Your task to perform on an android device: Open Maps and search for coffee Image 0: 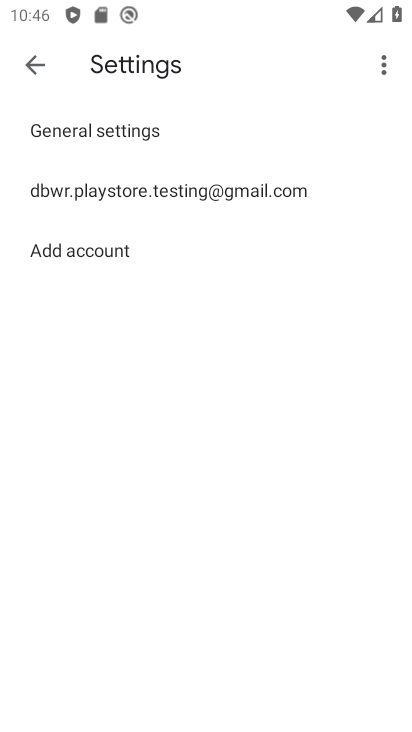
Step 0: click (39, 51)
Your task to perform on an android device: Open Maps and search for coffee Image 1: 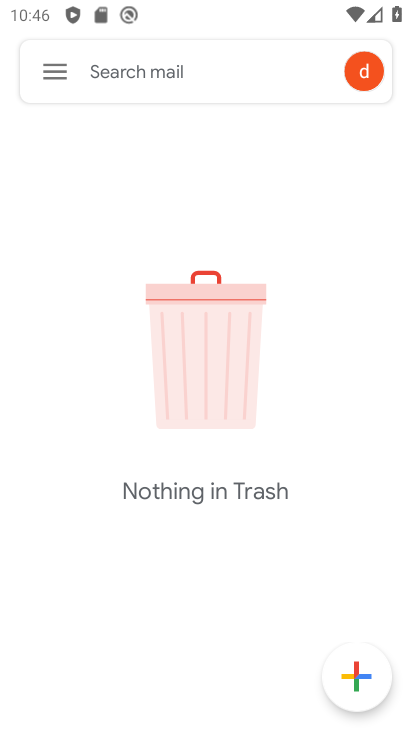
Step 1: press home button
Your task to perform on an android device: Open Maps and search for coffee Image 2: 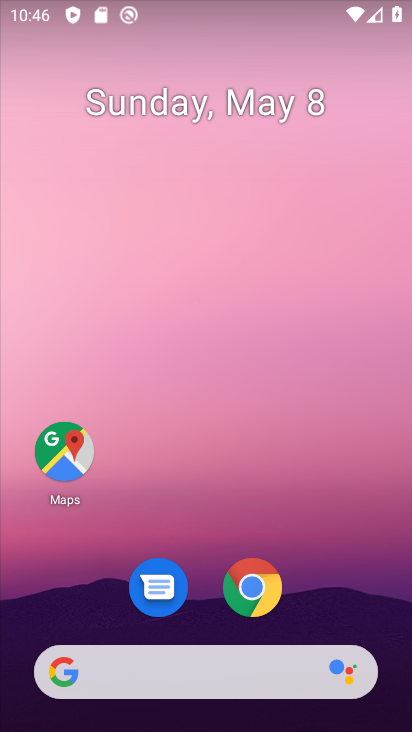
Step 2: click (63, 455)
Your task to perform on an android device: Open Maps and search for coffee Image 3: 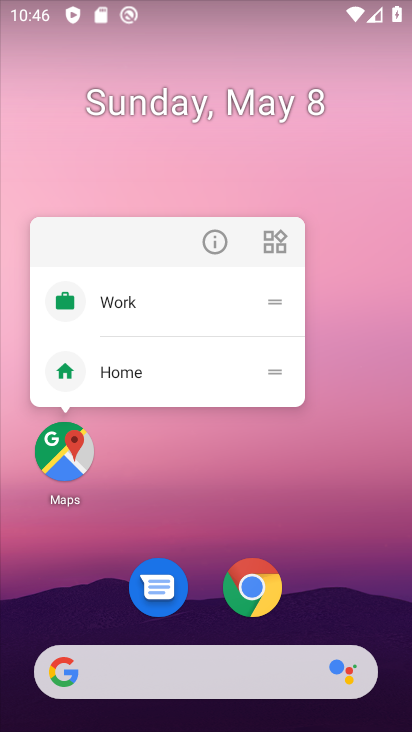
Step 3: click (56, 460)
Your task to perform on an android device: Open Maps and search for coffee Image 4: 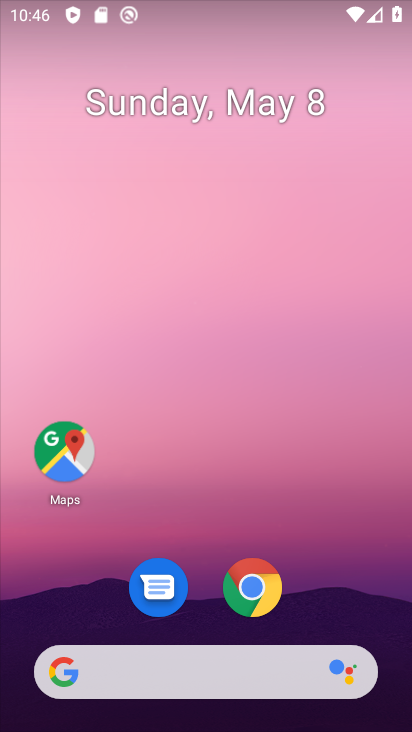
Step 4: click (56, 460)
Your task to perform on an android device: Open Maps and search for coffee Image 5: 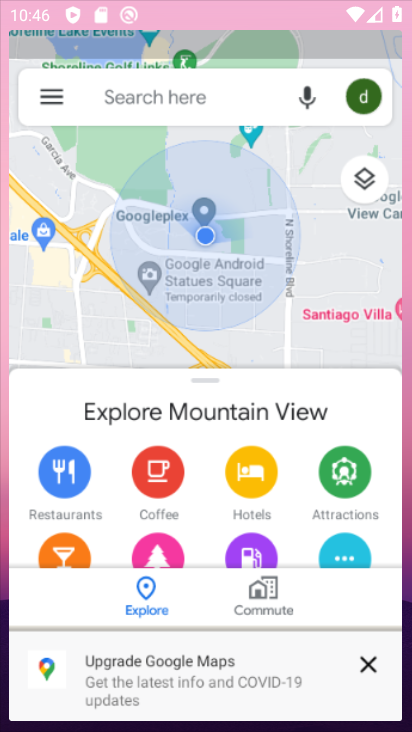
Step 5: click (55, 460)
Your task to perform on an android device: Open Maps and search for coffee Image 6: 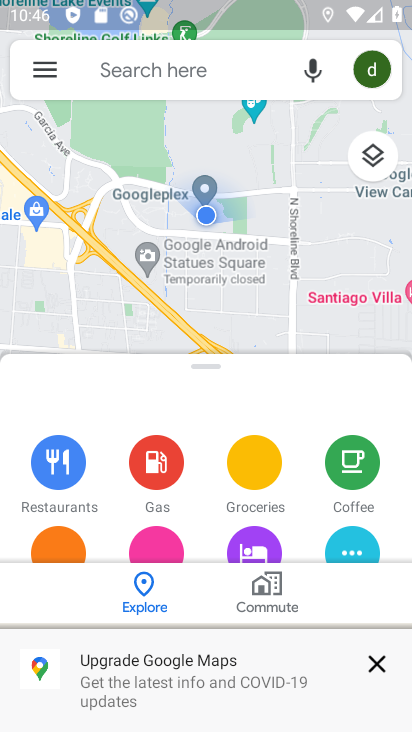
Step 6: click (114, 71)
Your task to perform on an android device: Open Maps and search for coffee Image 7: 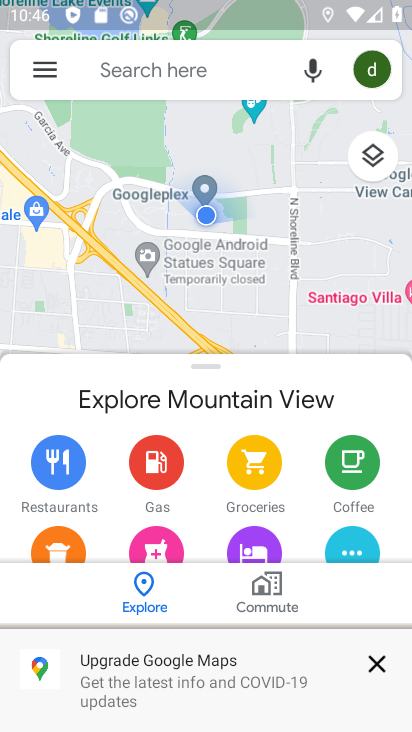
Step 7: click (109, 67)
Your task to perform on an android device: Open Maps and search for coffee Image 8: 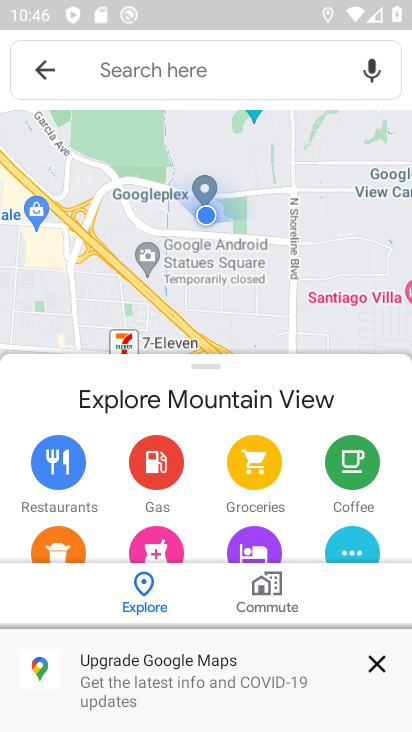
Step 8: click (109, 67)
Your task to perform on an android device: Open Maps and search for coffee Image 9: 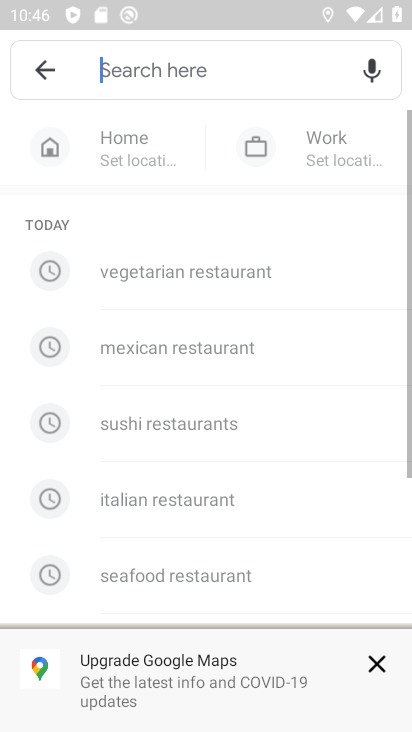
Step 9: click (110, 66)
Your task to perform on an android device: Open Maps and search for coffee Image 10: 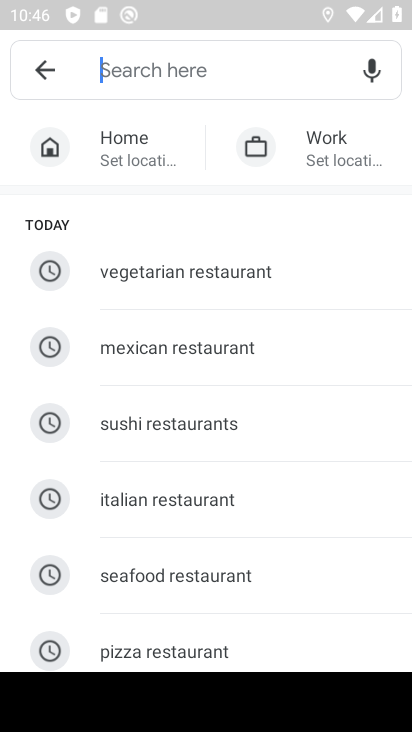
Step 10: type "coffee"
Your task to perform on an android device: Open Maps and search for coffee Image 11: 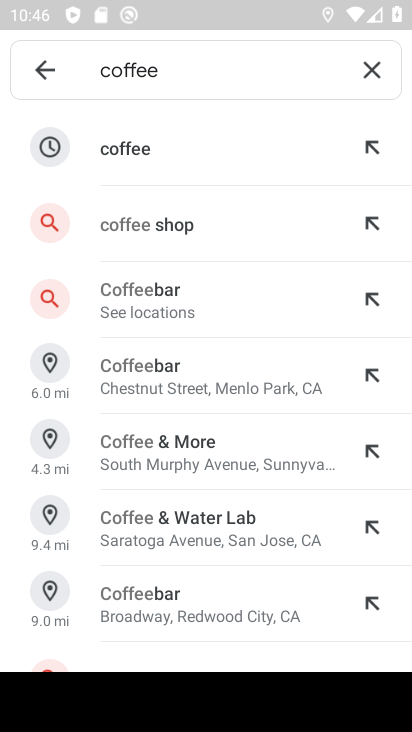
Step 11: click (139, 159)
Your task to perform on an android device: Open Maps and search for coffee Image 12: 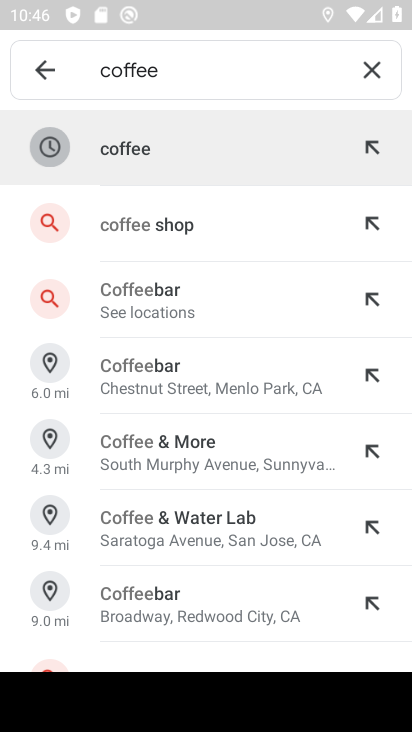
Step 12: click (139, 159)
Your task to perform on an android device: Open Maps and search for coffee Image 13: 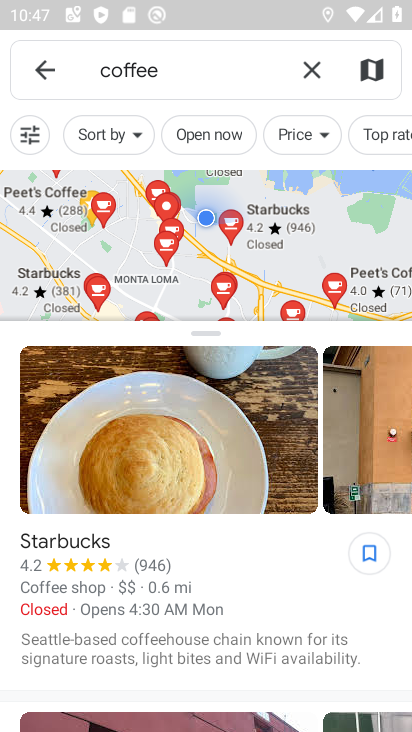
Step 13: task complete